Your task to perform on an android device: add a contact Image 0: 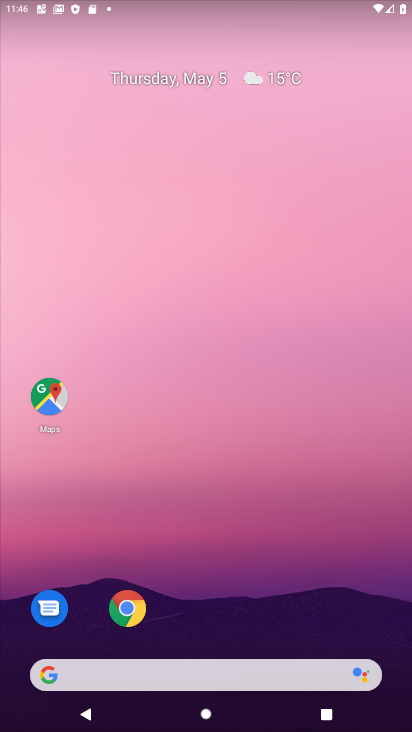
Step 0: drag from (256, 608) to (266, 154)
Your task to perform on an android device: add a contact Image 1: 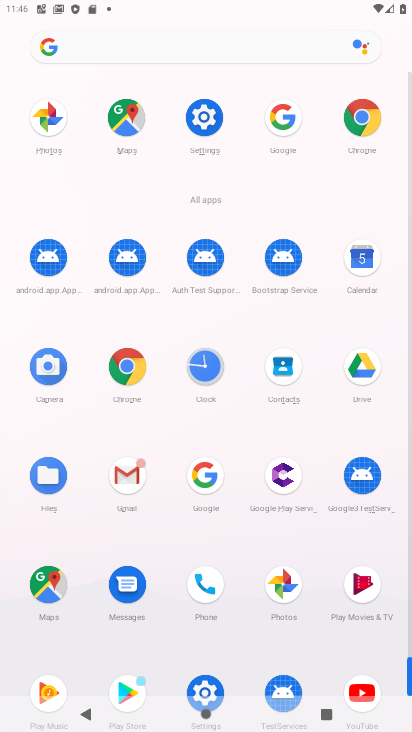
Step 1: click (292, 365)
Your task to perform on an android device: add a contact Image 2: 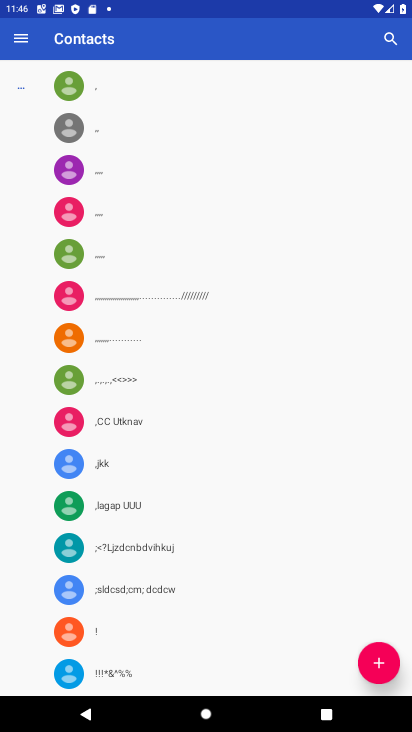
Step 2: click (386, 667)
Your task to perform on an android device: add a contact Image 3: 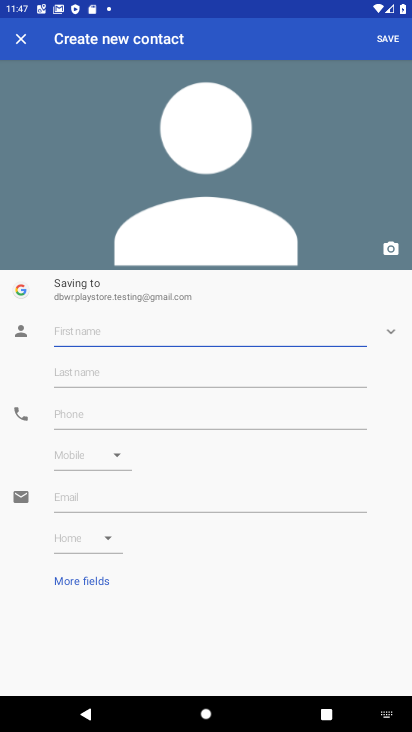
Step 3: click (156, 336)
Your task to perform on an android device: add a contact Image 4: 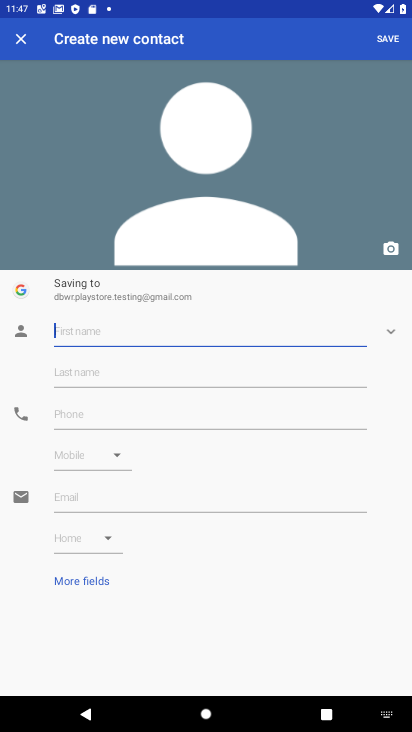
Step 4: type "sumit"
Your task to perform on an android device: add a contact Image 5: 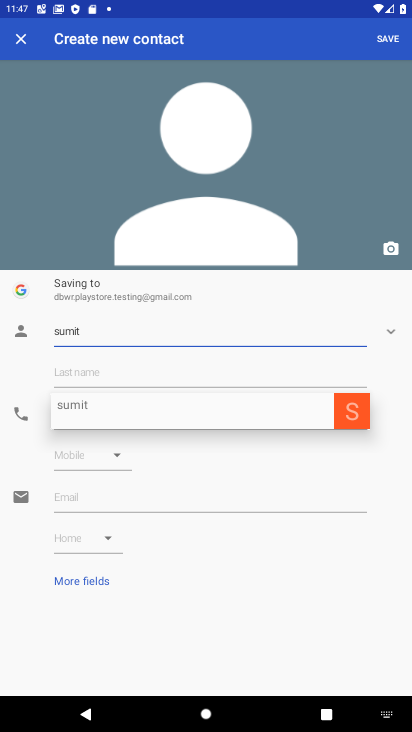
Step 5: type "ton"
Your task to perform on an android device: add a contact Image 6: 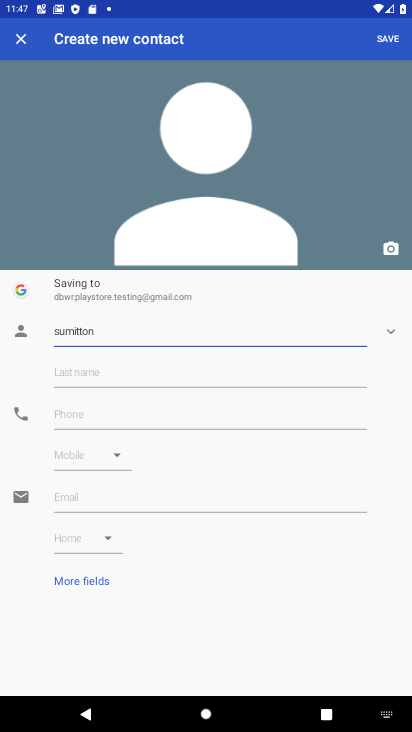
Step 6: click (80, 421)
Your task to perform on an android device: add a contact Image 7: 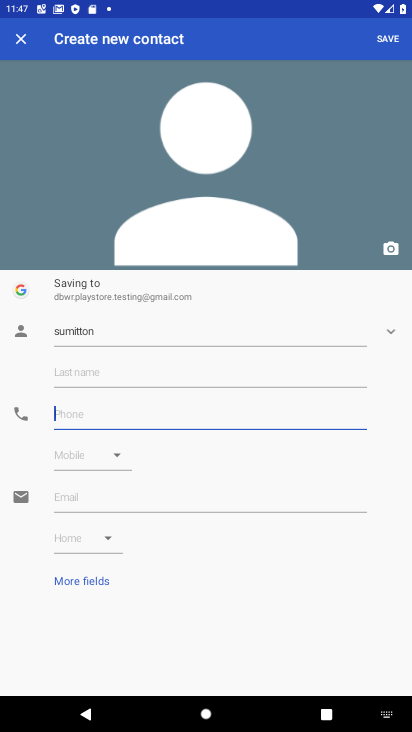
Step 7: type "657645346"
Your task to perform on an android device: add a contact Image 8: 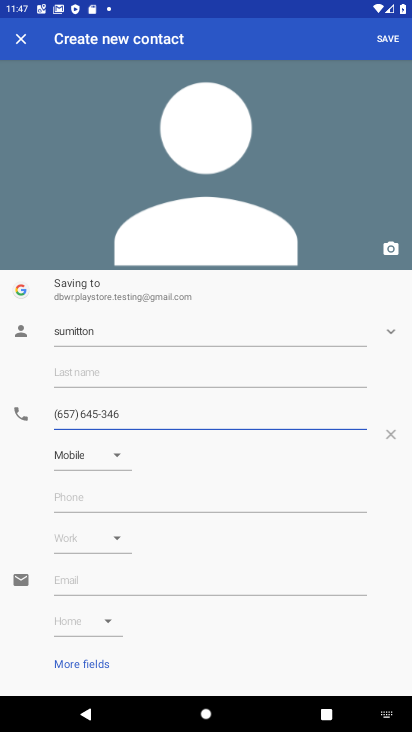
Step 8: click (387, 39)
Your task to perform on an android device: add a contact Image 9: 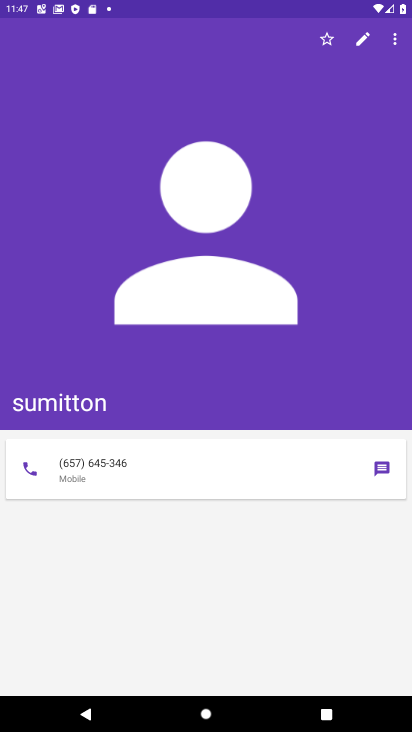
Step 9: task complete